Your task to perform on an android device: turn off location Image 0: 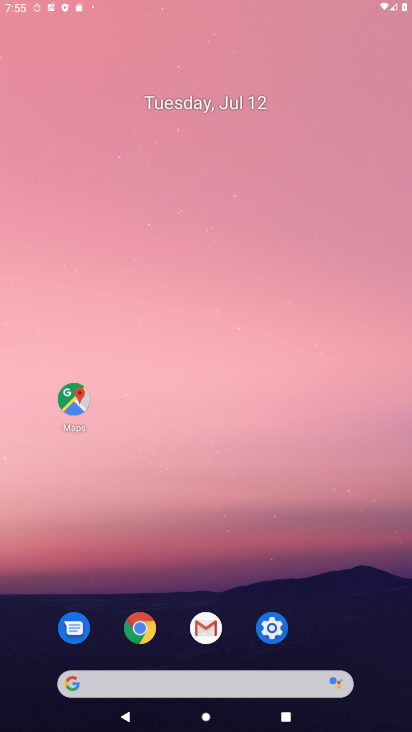
Step 0: press home button
Your task to perform on an android device: turn off location Image 1: 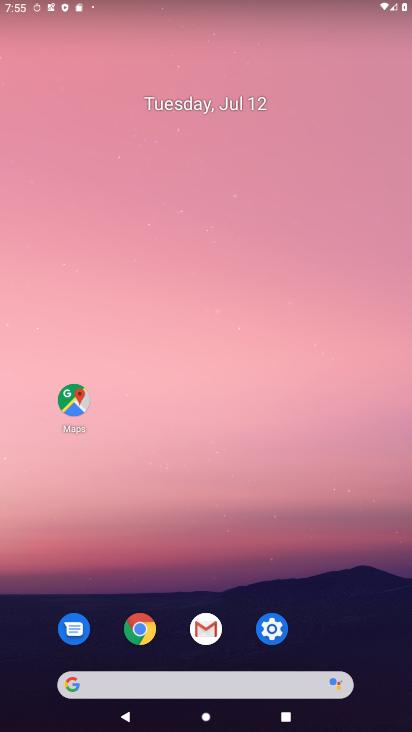
Step 1: click (276, 622)
Your task to perform on an android device: turn off location Image 2: 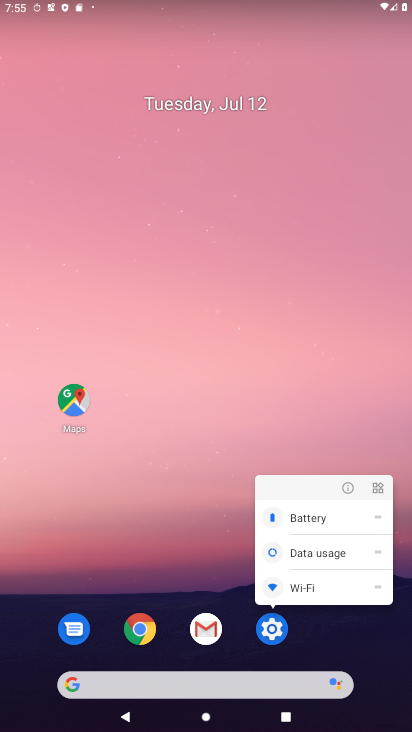
Step 2: click (273, 629)
Your task to perform on an android device: turn off location Image 3: 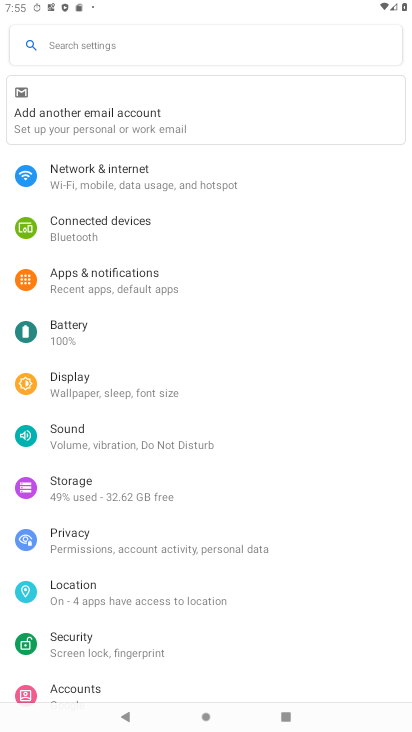
Step 3: click (101, 583)
Your task to perform on an android device: turn off location Image 4: 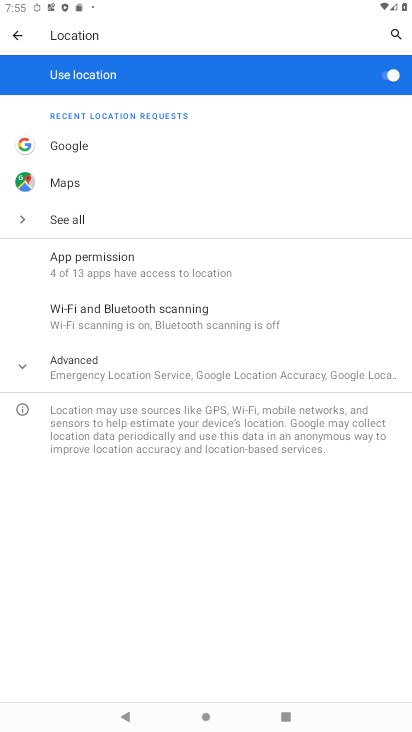
Step 4: click (387, 63)
Your task to perform on an android device: turn off location Image 5: 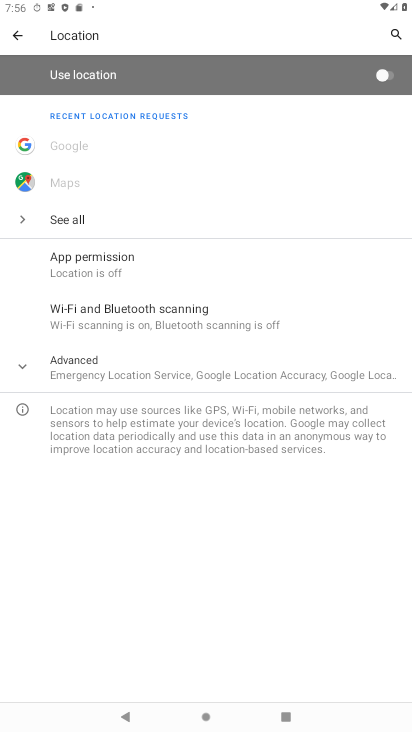
Step 5: task complete